Your task to perform on an android device: What's the weather going to be tomorrow? Image 0: 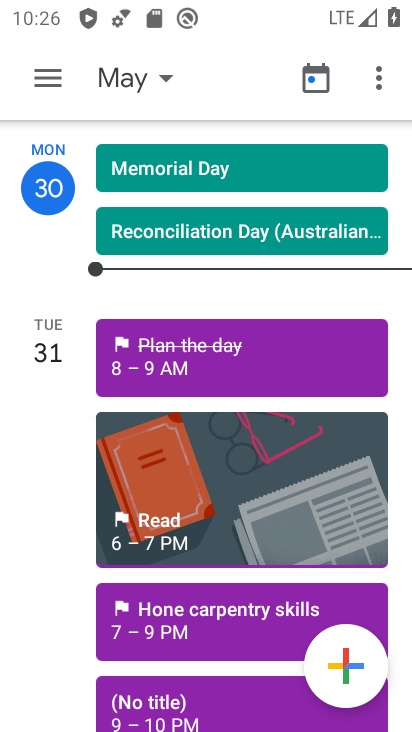
Step 0: press home button
Your task to perform on an android device: What's the weather going to be tomorrow? Image 1: 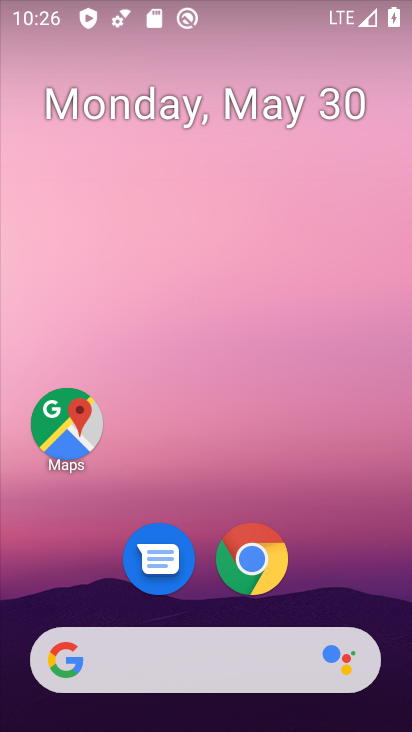
Step 1: click (257, 588)
Your task to perform on an android device: What's the weather going to be tomorrow? Image 2: 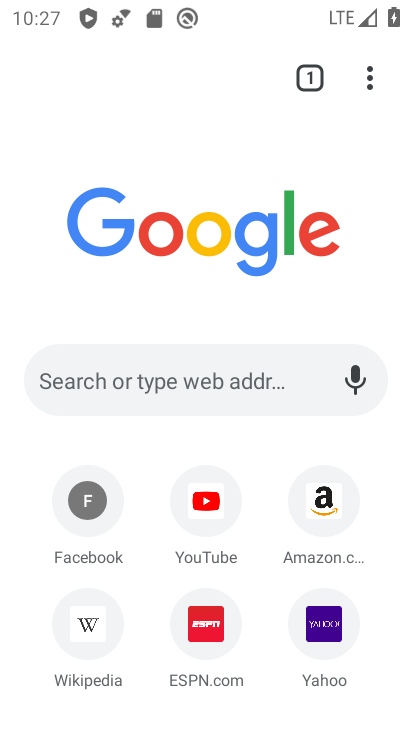
Step 2: click (245, 398)
Your task to perform on an android device: What's the weather going to be tomorrow? Image 3: 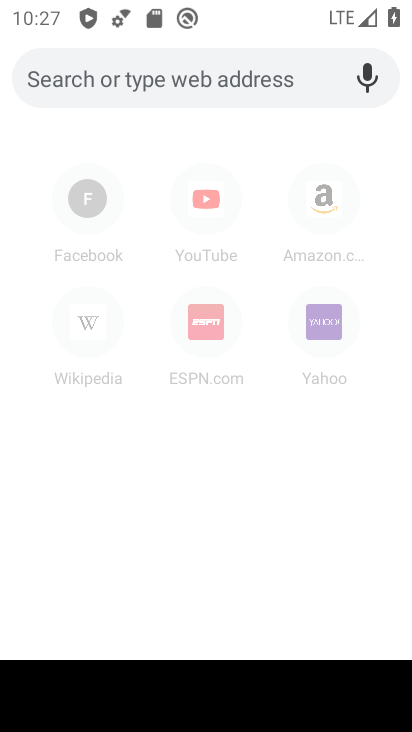
Step 3: type "What's the weather going to be tomorrow?"
Your task to perform on an android device: What's the weather going to be tomorrow? Image 4: 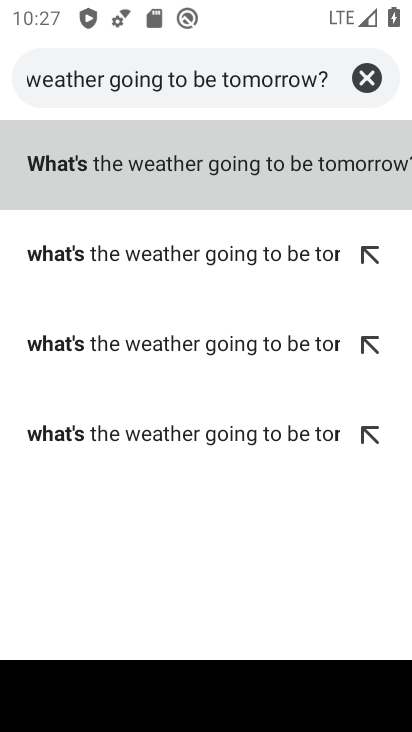
Step 4: click (325, 165)
Your task to perform on an android device: What's the weather going to be tomorrow? Image 5: 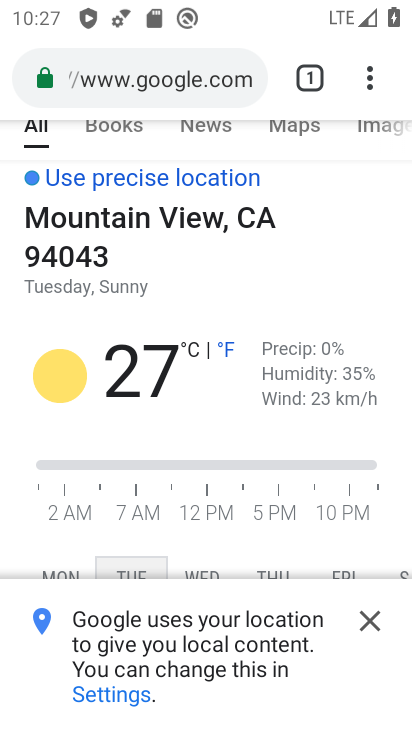
Step 5: click (373, 613)
Your task to perform on an android device: What's the weather going to be tomorrow? Image 6: 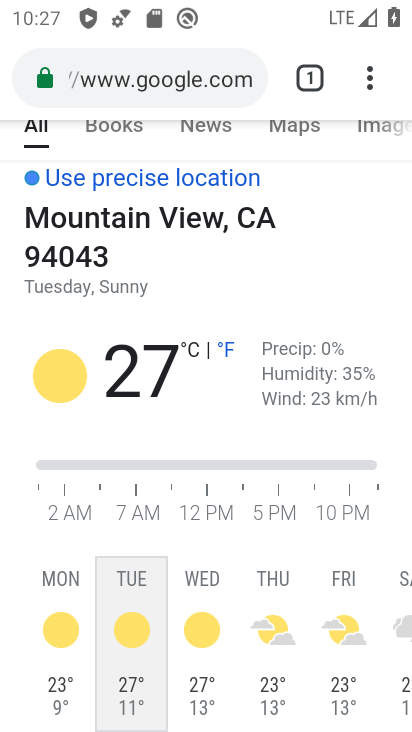
Step 6: click (207, 578)
Your task to perform on an android device: What's the weather going to be tomorrow? Image 7: 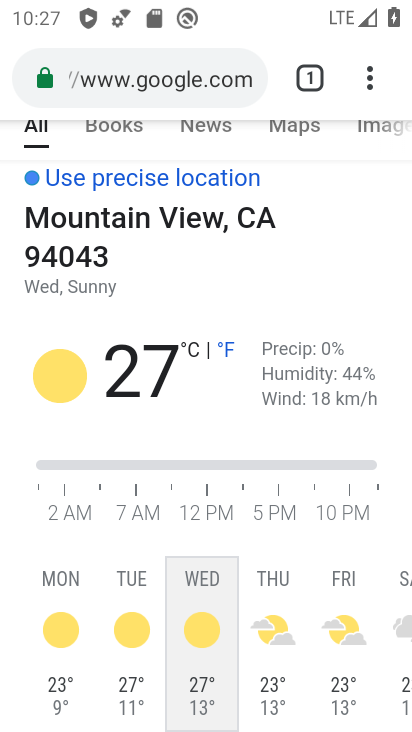
Step 7: task complete